Your task to perform on an android device: Open wifi settings Image 0: 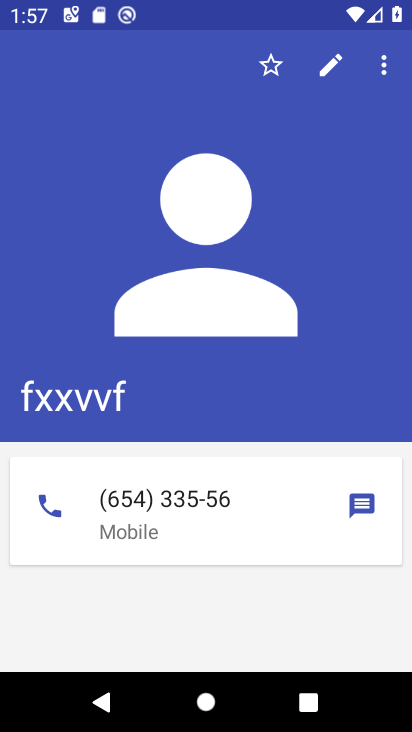
Step 0: press home button
Your task to perform on an android device: Open wifi settings Image 1: 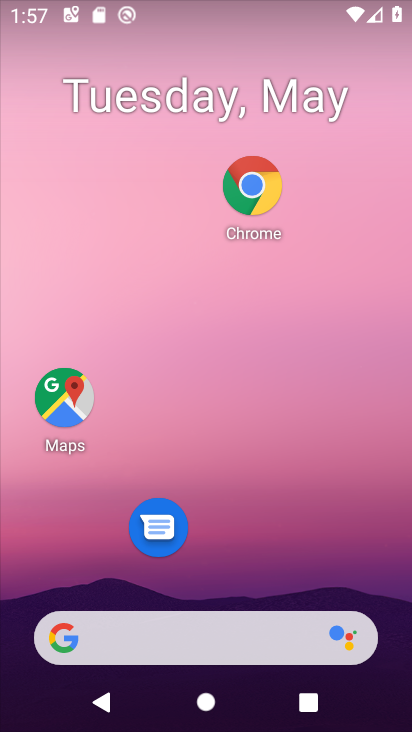
Step 1: drag from (281, 509) to (193, 77)
Your task to perform on an android device: Open wifi settings Image 2: 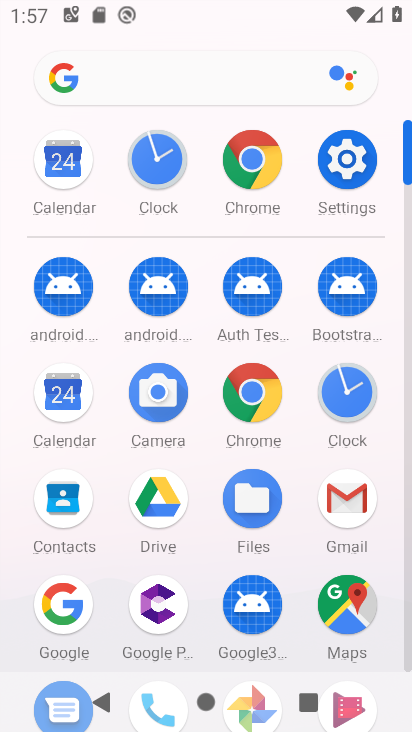
Step 2: click (342, 157)
Your task to perform on an android device: Open wifi settings Image 3: 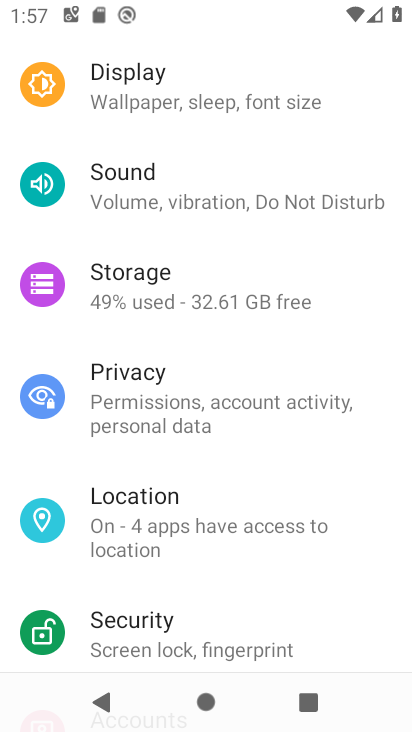
Step 3: drag from (226, 157) to (260, 555)
Your task to perform on an android device: Open wifi settings Image 4: 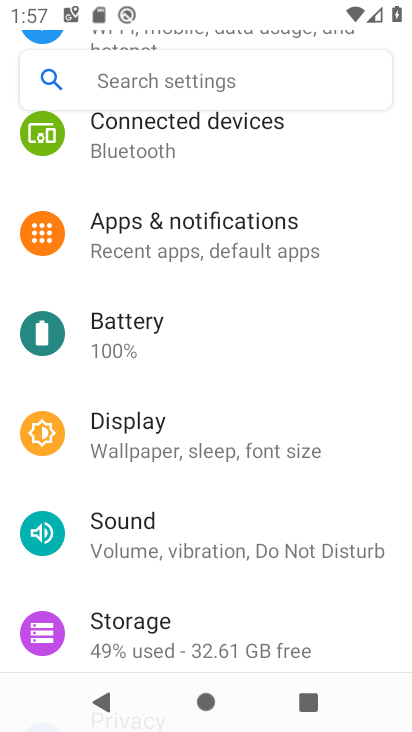
Step 4: drag from (194, 177) to (200, 583)
Your task to perform on an android device: Open wifi settings Image 5: 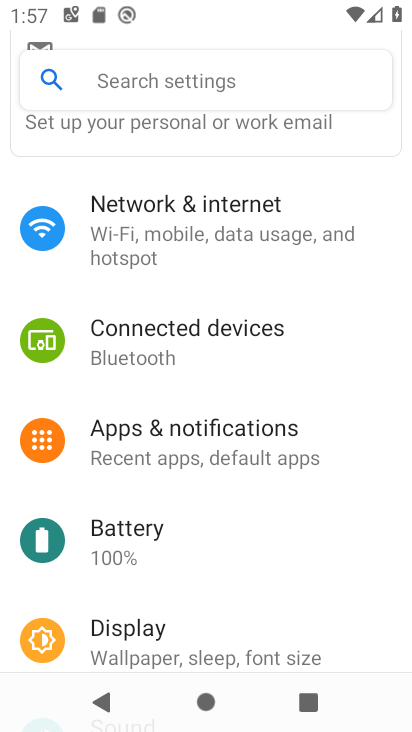
Step 5: click (177, 204)
Your task to perform on an android device: Open wifi settings Image 6: 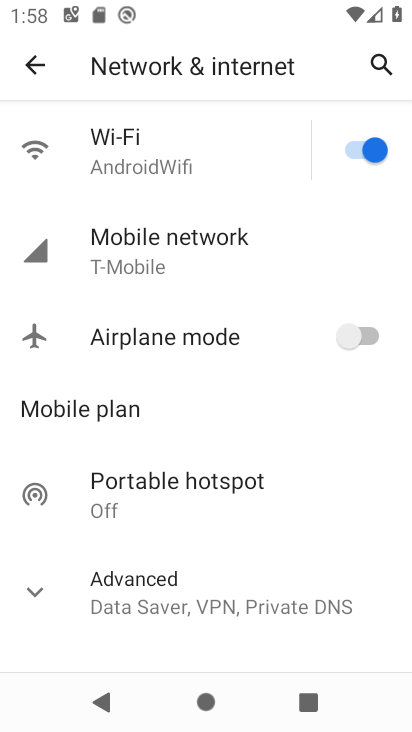
Step 6: click (125, 144)
Your task to perform on an android device: Open wifi settings Image 7: 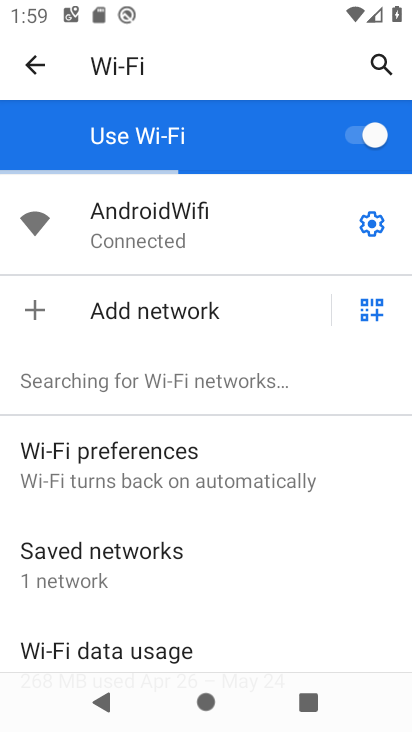
Step 7: task complete